Your task to perform on an android device: Show the shopping cart on costco. Add "razer thresher" to the cart on costco Image 0: 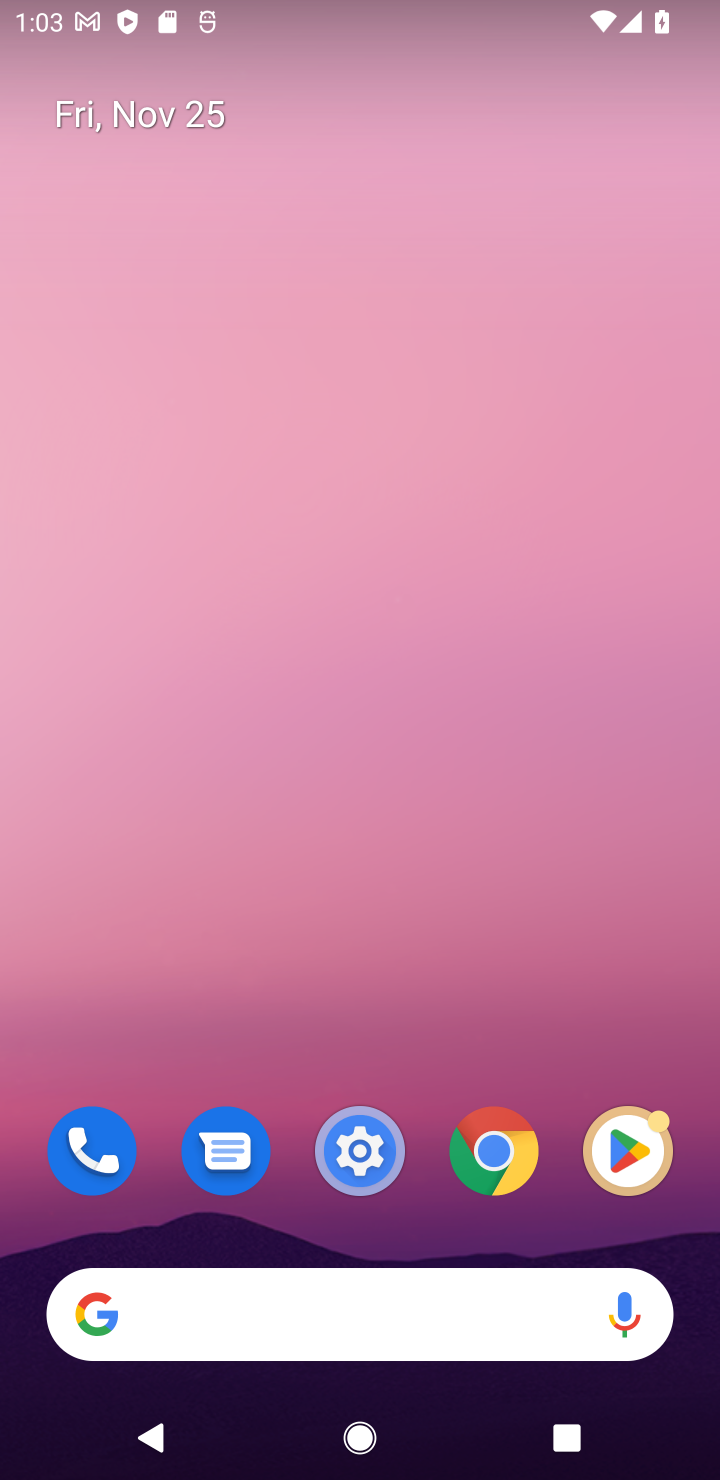
Step 0: press home button
Your task to perform on an android device: Show the shopping cart on costco. Add "razer thresher" to the cart on costco Image 1: 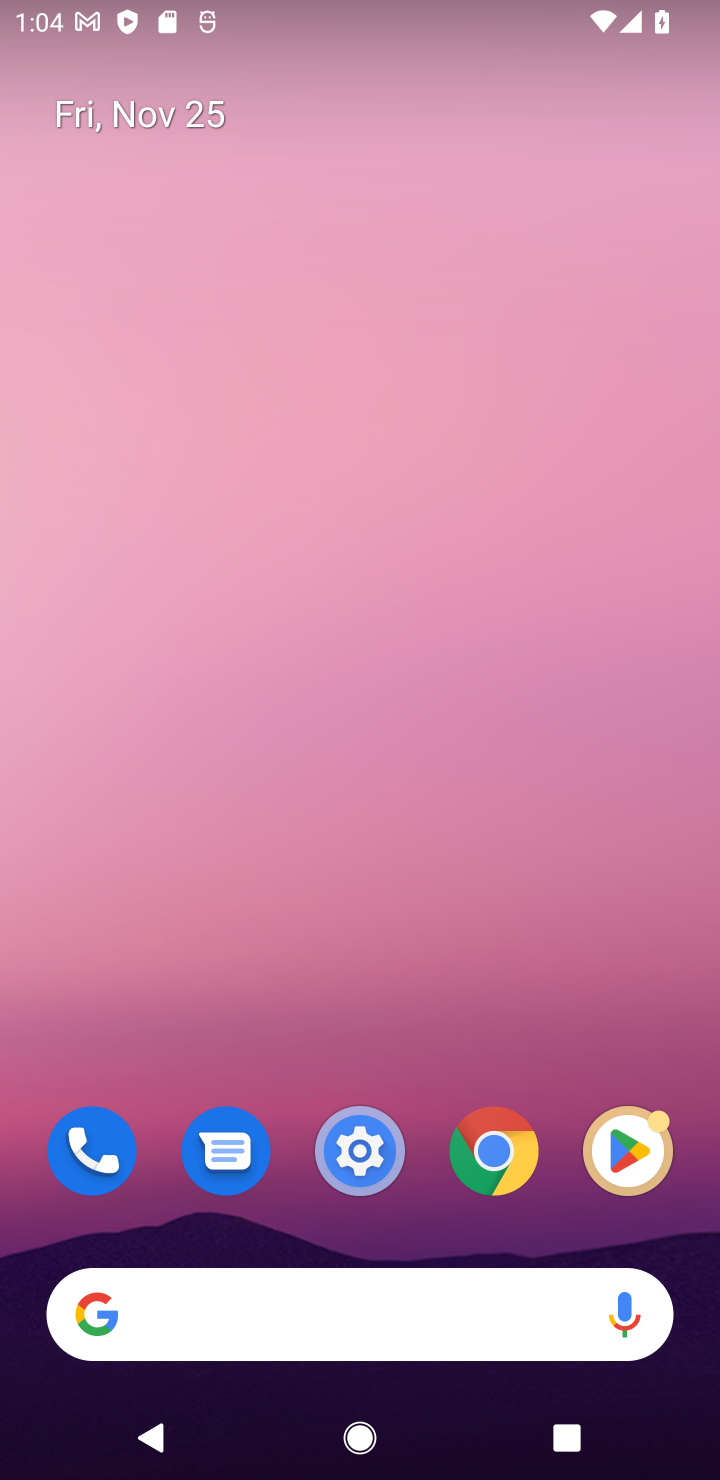
Step 1: click (369, 1322)
Your task to perform on an android device: Show the shopping cart on costco. Add "razer thresher" to the cart on costco Image 2: 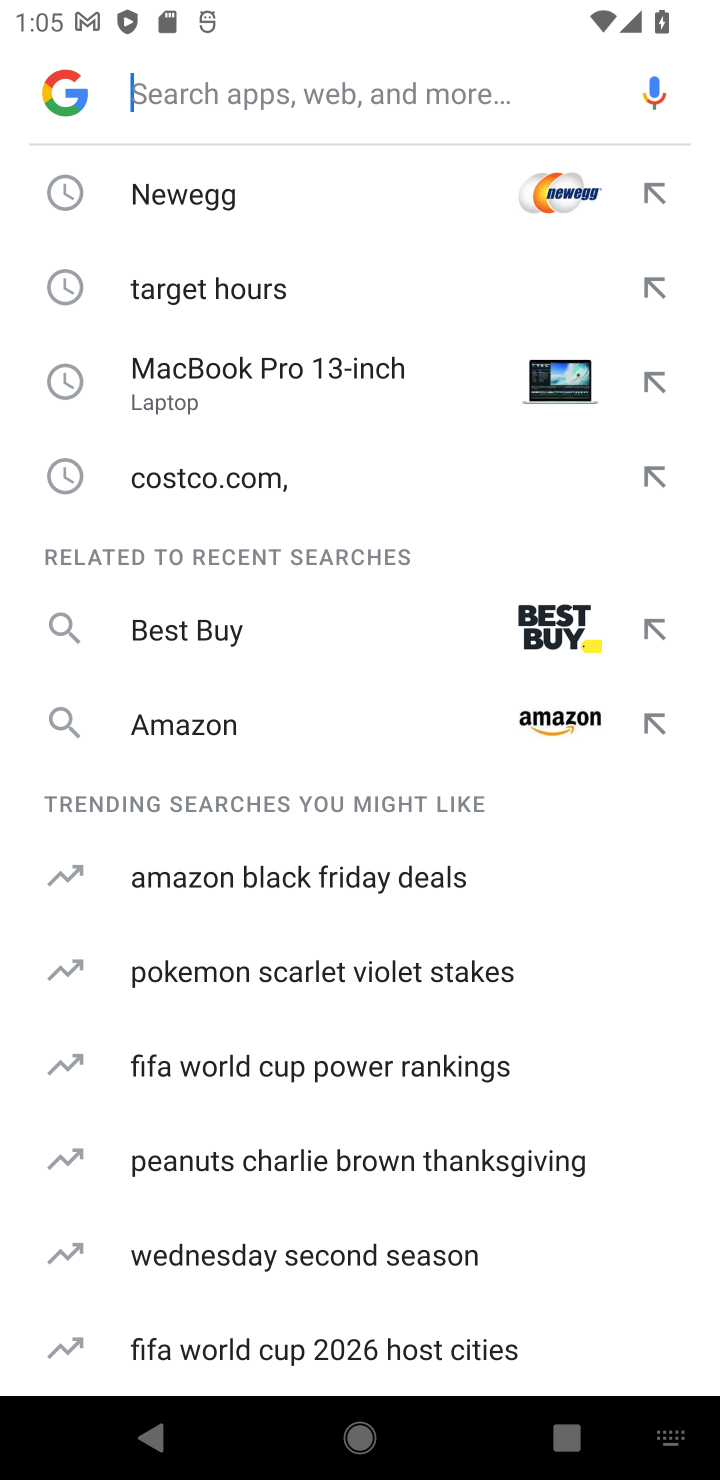
Step 2: type "costco"
Your task to perform on an android device: Show the shopping cart on costco. Add "razer thresher" to the cart on costco Image 3: 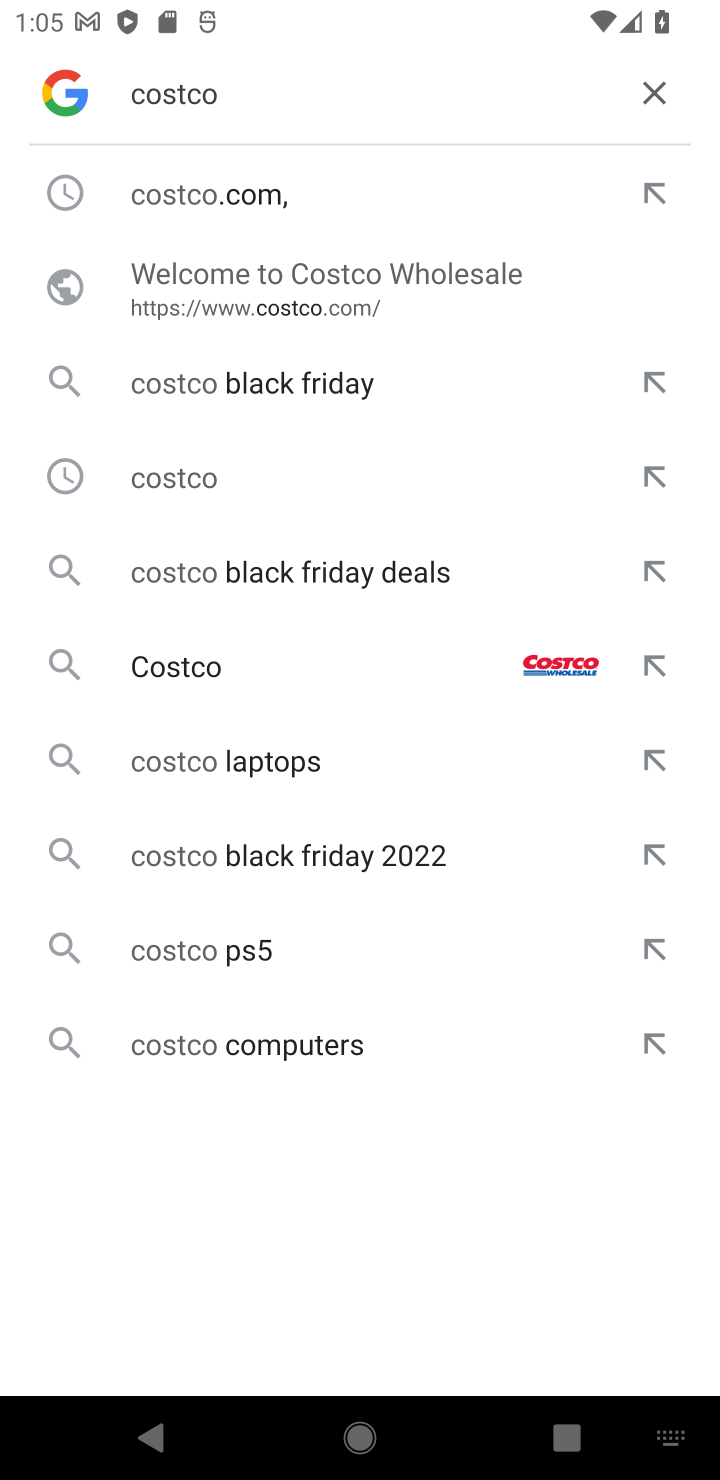
Step 3: click (212, 191)
Your task to perform on an android device: Show the shopping cart on costco. Add "razer thresher" to the cart on costco Image 4: 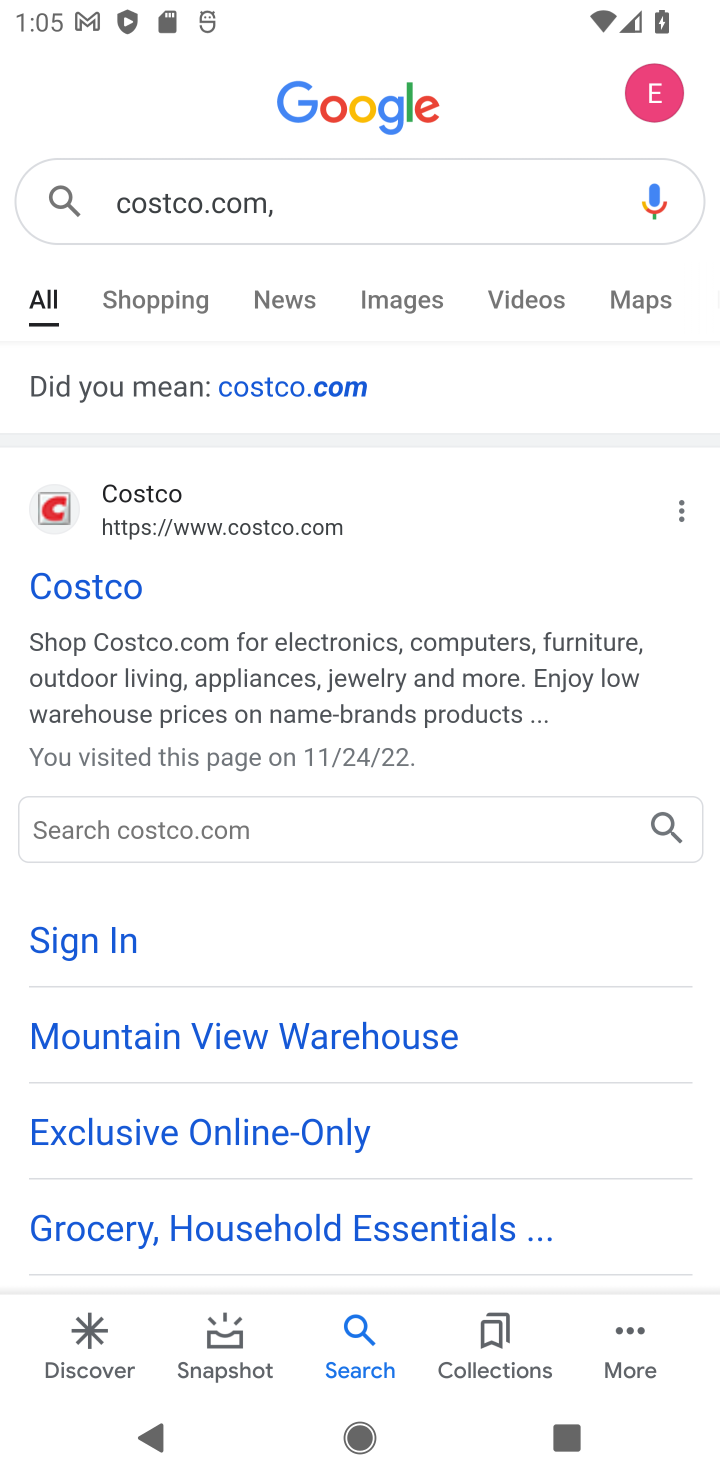
Step 4: click (118, 564)
Your task to perform on an android device: Show the shopping cart on costco. Add "razer thresher" to the cart on costco Image 5: 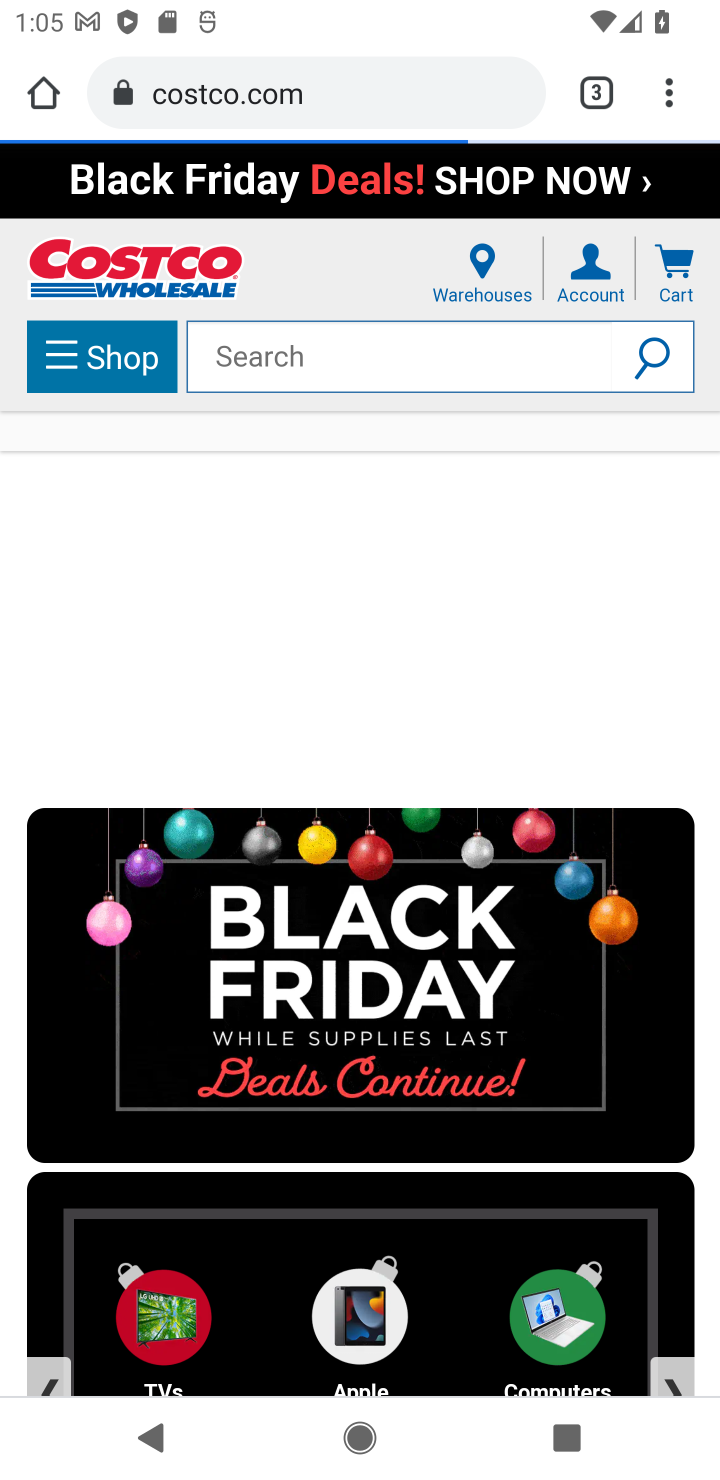
Step 5: click (279, 357)
Your task to perform on an android device: Show the shopping cart on costco. Add "razer thresher" to the cart on costco Image 6: 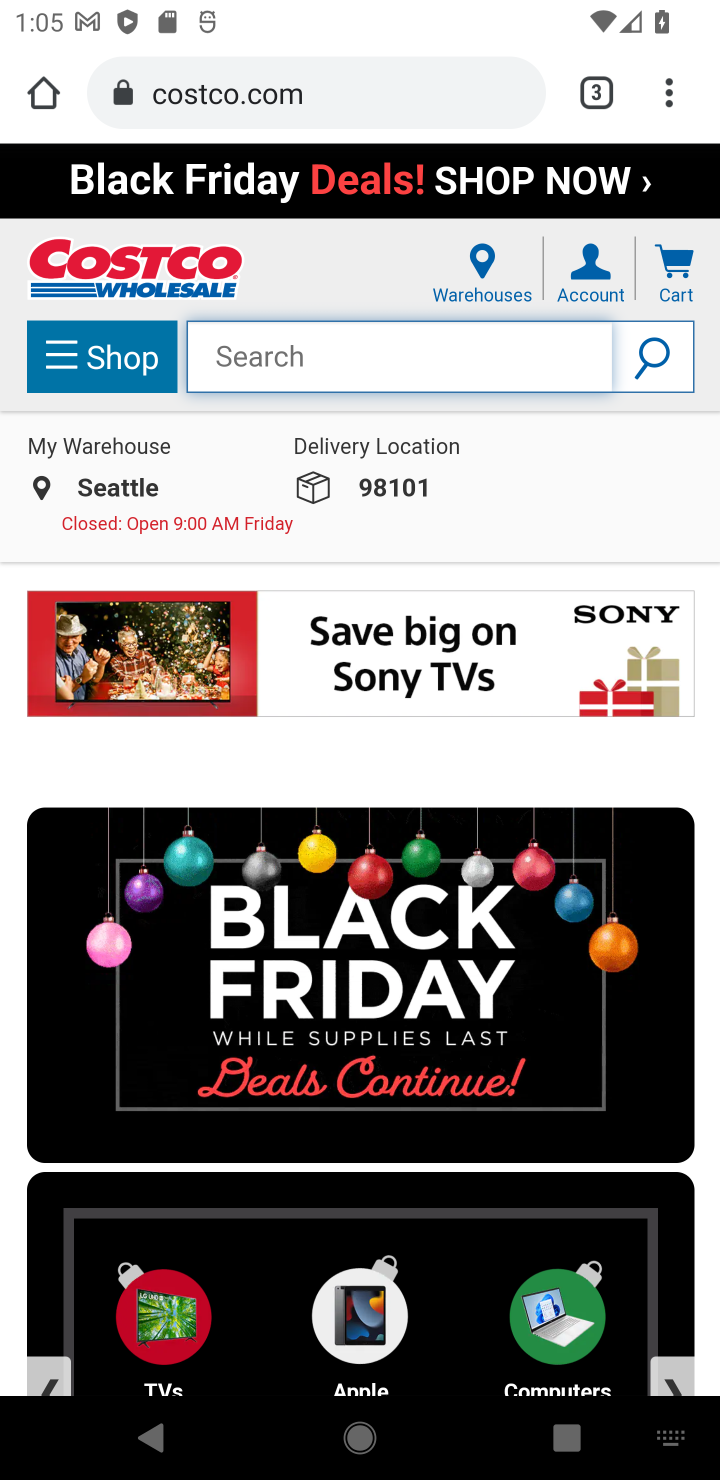
Step 6: type "razer thresher"
Your task to perform on an android device: Show the shopping cart on costco. Add "razer thresher" to the cart on costco Image 7: 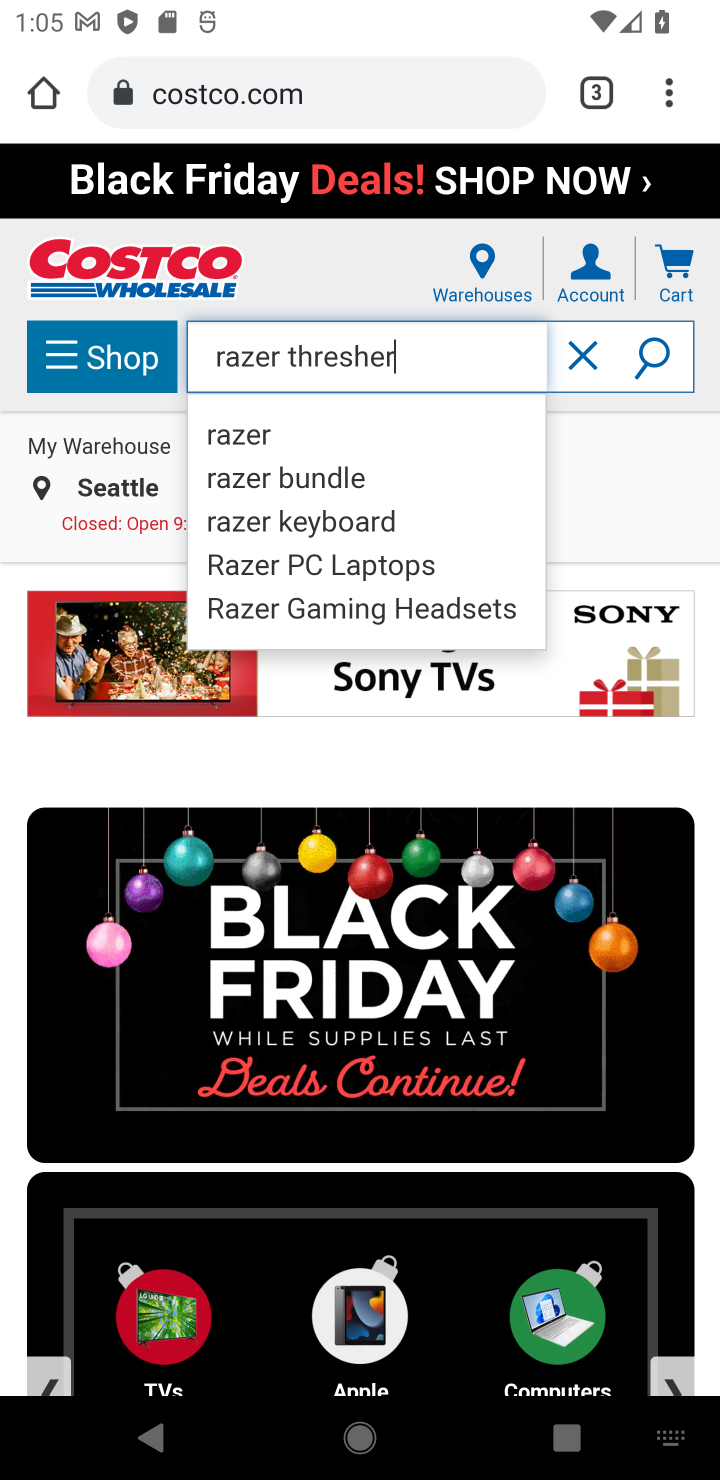
Step 7: click (642, 366)
Your task to perform on an android device: Show the shopping cart on costco. Add "razer thresher" to the cart on costco Image 8: 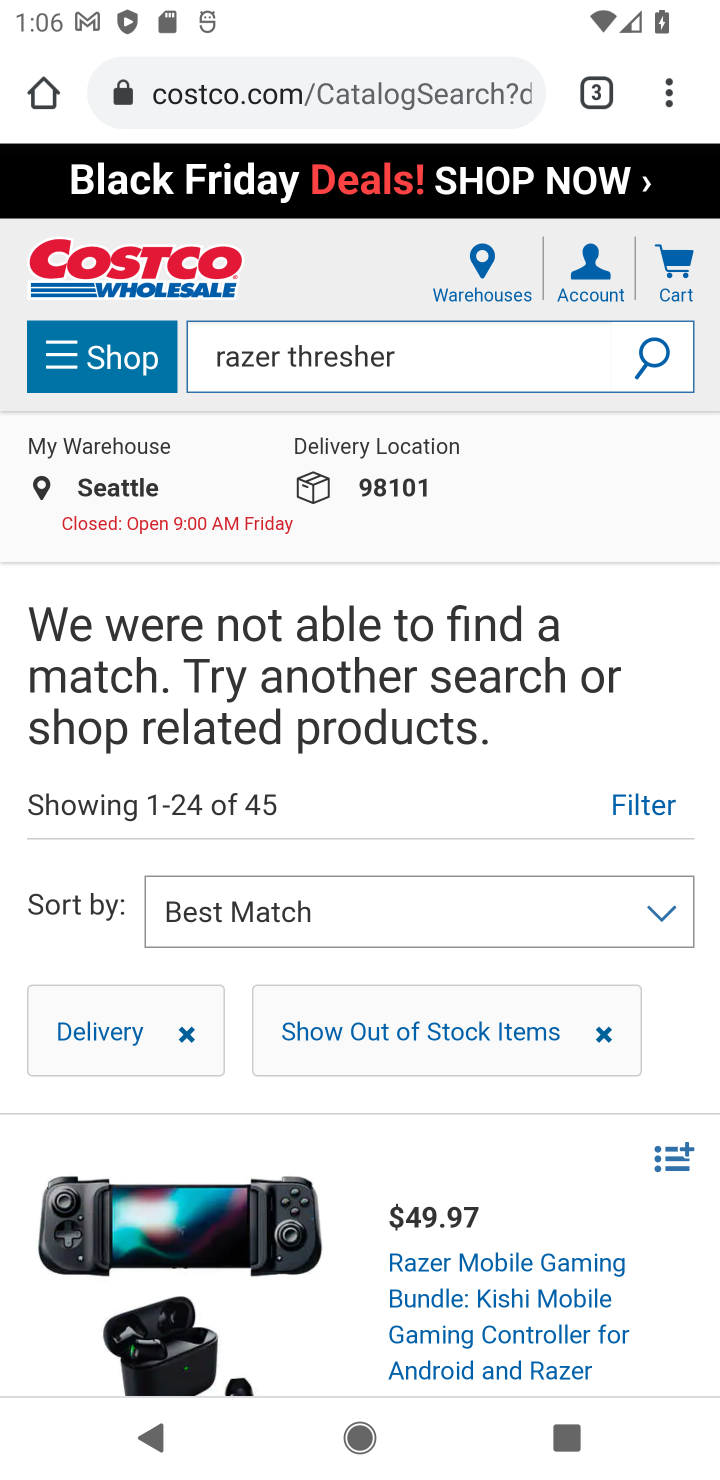
Step 8: click (554, 1263)
Your task to perform on an android device: Show the shopping cart on costco. Add "razer thresher" to the cart on costco Image 9: 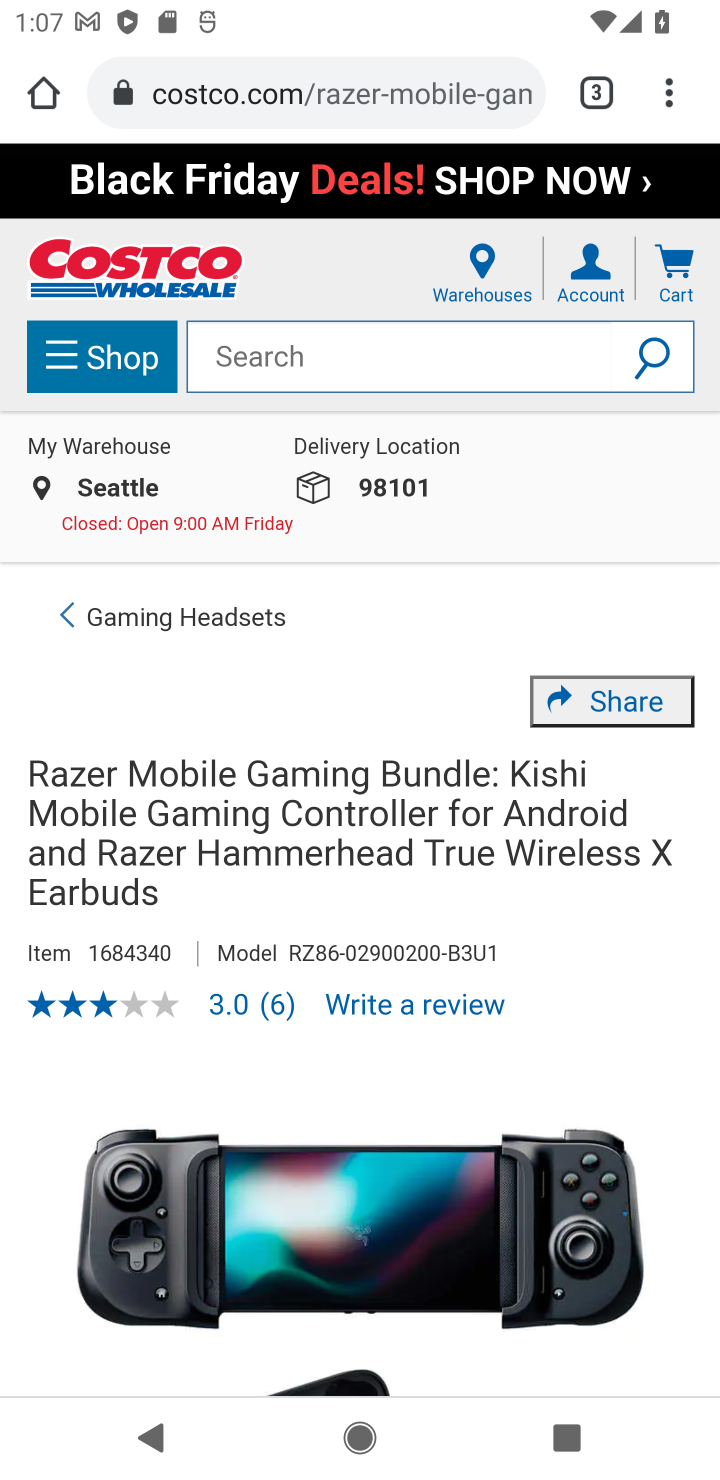
Step 9: task complete